Your task to perform on an android device: Open Reddit.com Image 0: 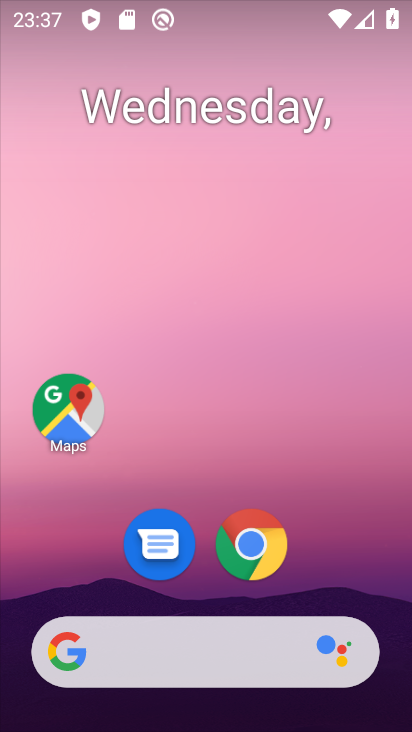
Step 0: click (226, 531)
Your task to perform on an android device: Open Reddit.com Image 1: 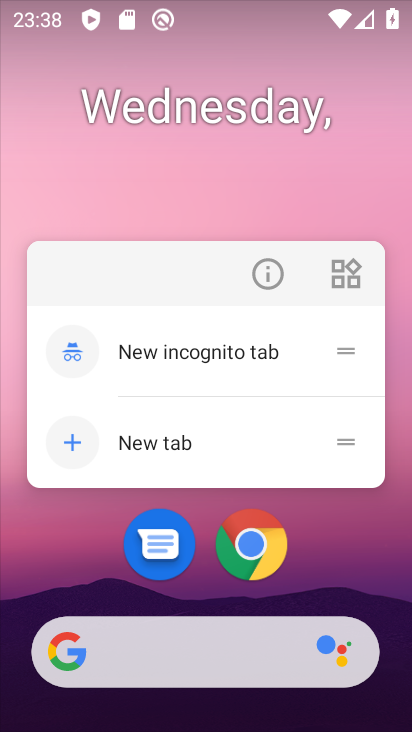
Step 1: click (245, 538)
Your task to perform on an android device: Open Reddit.com Image 2: 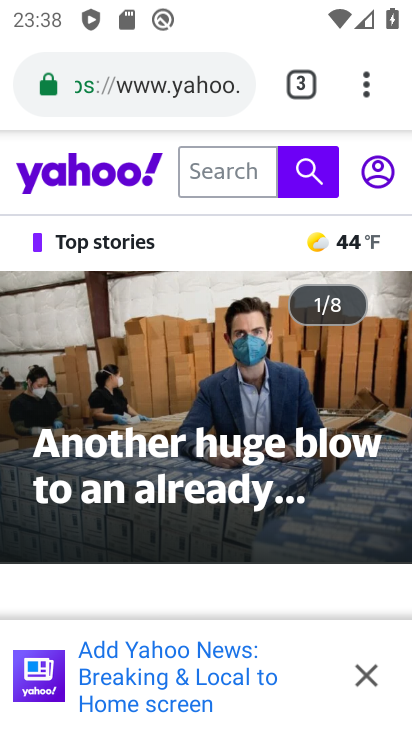
Step 2: click (207, 89)
Your task to perform on an android device: Open Reddit.com Image 3: 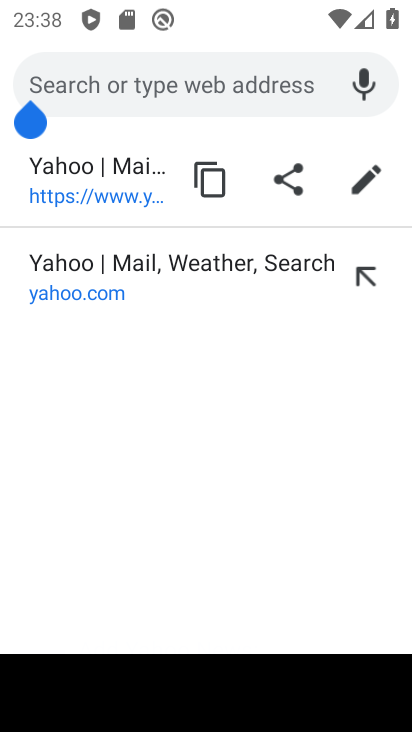
Step 3: click (207, 89)
Your task to perform on an android device: Open Reddit.com Image 4: 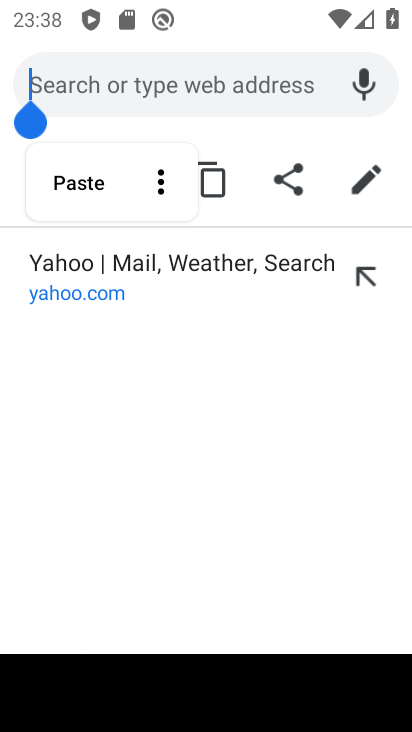
Step 4: click (207, 89)
Your task to perform on an android device: Open Reddit.com Image 5: 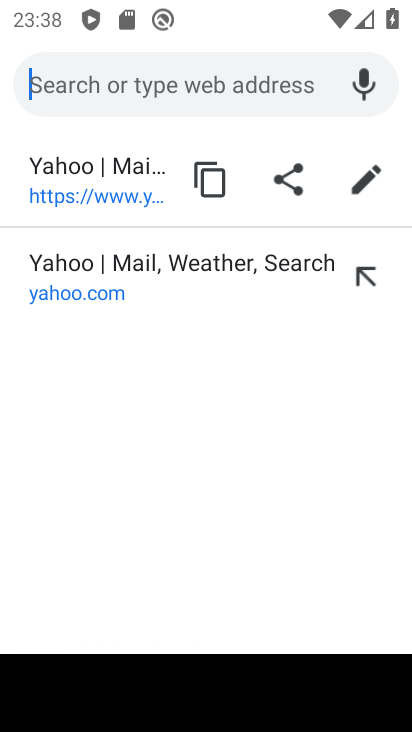
Step 5: type "Reddit.com"
Your task to perform on an android device: Open Reddit.com Image 6: 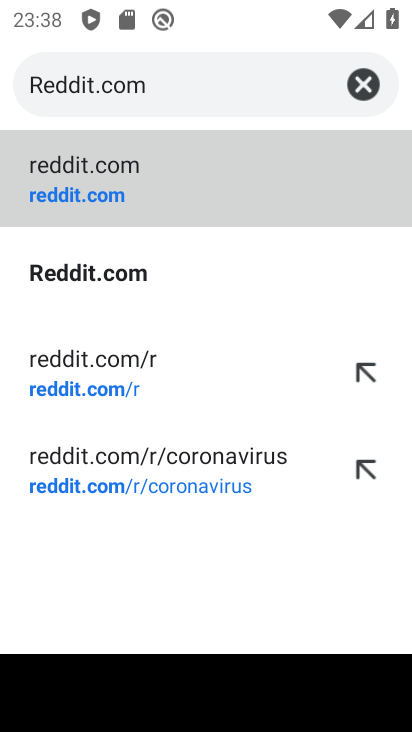
Step 6: click (137, 188)
Your task to perform on an android device: Open Reddit.com Image 7: 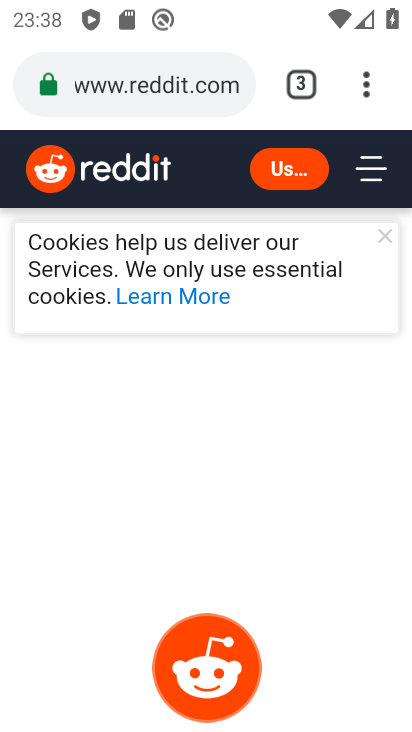
Step 7: task complete